Your task to perform on an android device: Go to location settings Image 0: 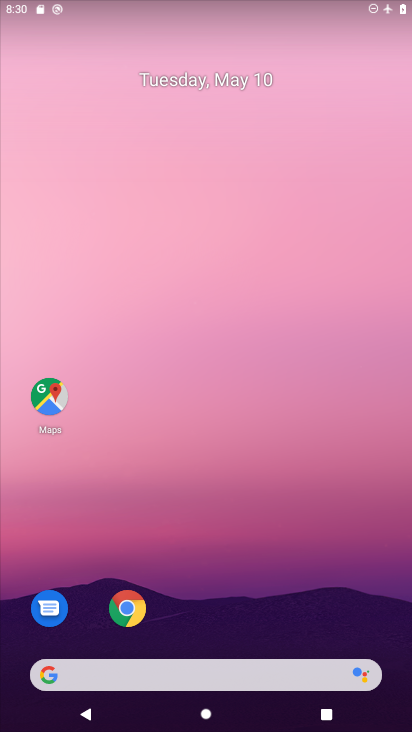
Step 0: drag from (274, 592) to (317, 307)
Your task to perform on an android device: Go to location settings Image 1: 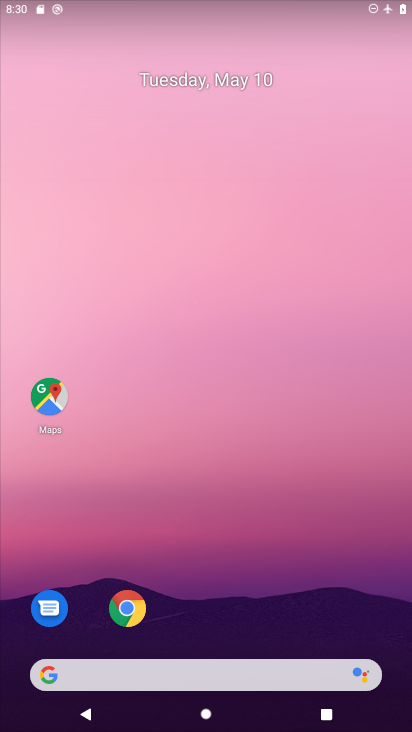
Step 1: drag from (240, 627) to (325, 290)
Your task to perform on an android device: Go to location settings Image 2: 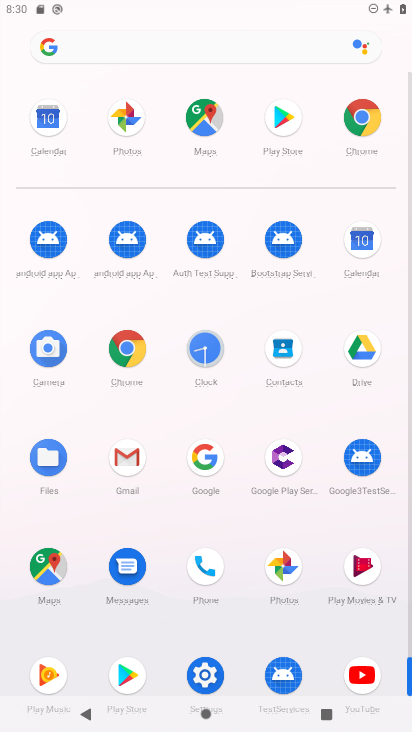
Step 2: click (202, 675)
Your task to perform on an android device: Go to location settings Image 3: 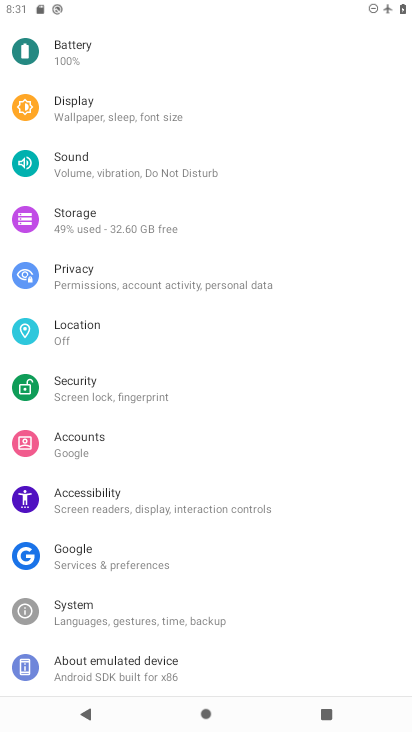
Step 3: click (91, 329)
Your task to perform on an android device: Go to location settings Image 4: 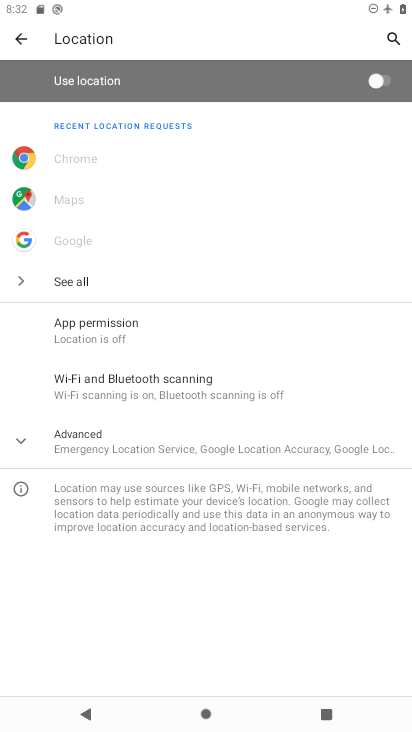
Step 4: task complete